Your task to perform on an android device: allow notifications from all sites in the chrome app Image 0: 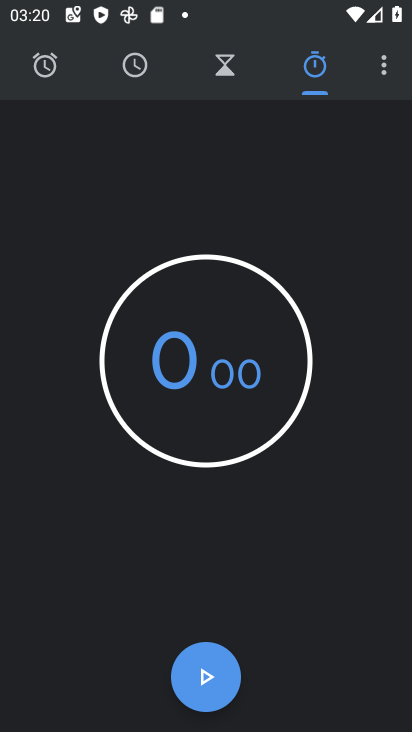
Step 0: press home button
Your task to perform on an android device: allow notifications from all sites in the chrome app Image 1: 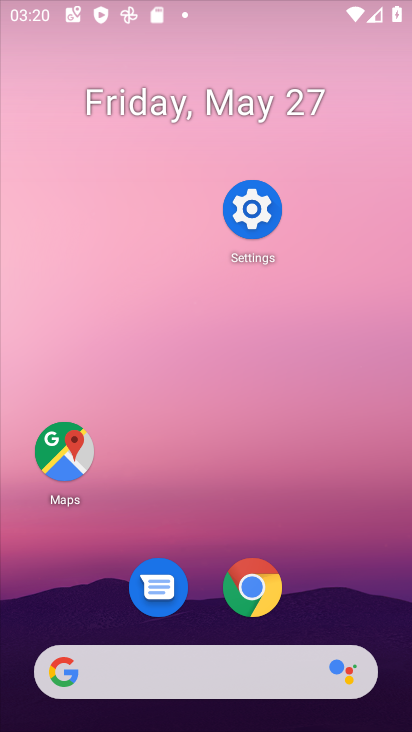
Step 1: click (393, 512)
Your task to perform on an android device: allow notifications from all sites in the chrome app Image 2: 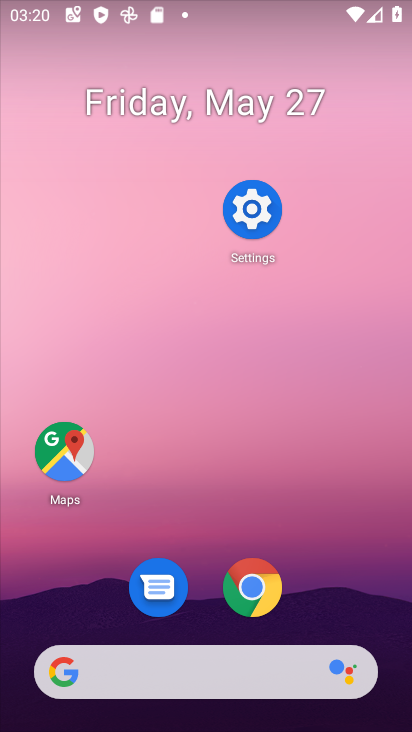
Step 2: click (260, 593)
Your task to perform on an android device: allow notifications from all sites in the chrome app Image 3: 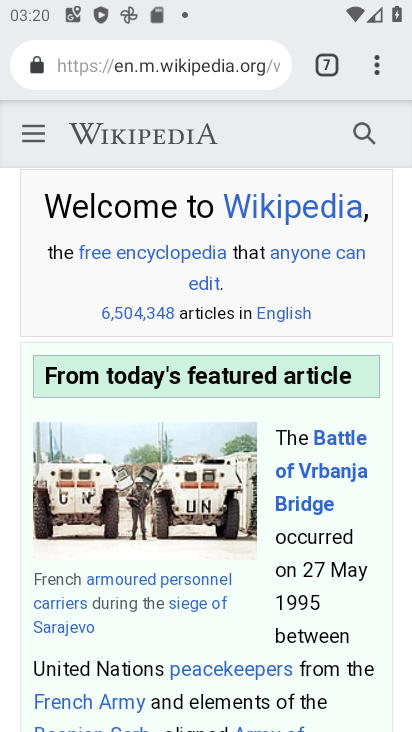
Step 3: press home button
Your task to perform on an android device: allow notifications from all sites in the chrome app Image 4: 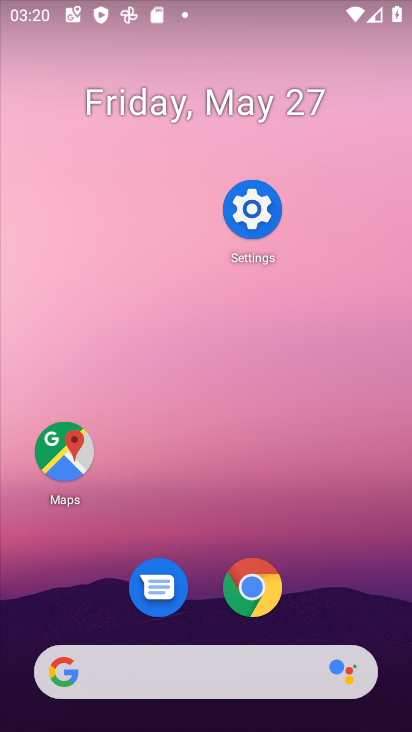
Step 4: click (286, 584)
Your task to perform on an android device: allow notifications from all sites in the chrome app Image 5: 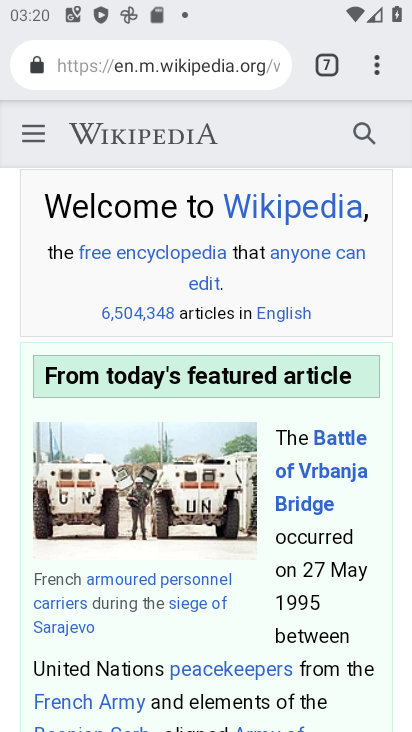
Step 5: click (373, 62)
Your task to perform on an android device: allow notifications from all sites in the chrome app Image 6: 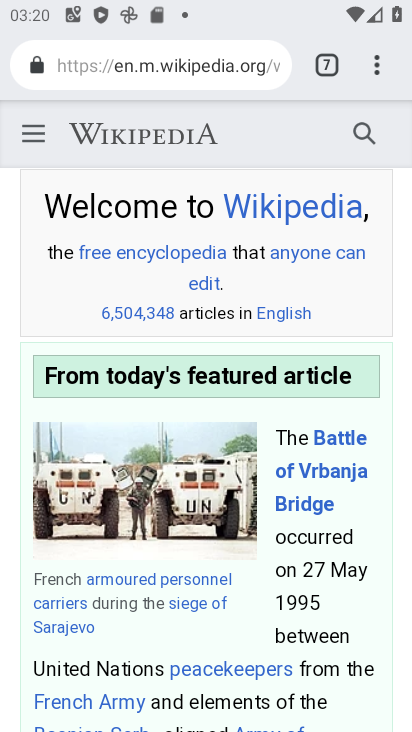
Step 6: drag from (379, 64) to (176, 640)
Your task to perform on an android device: allow notifications from all sites in the chrome app Image 7: 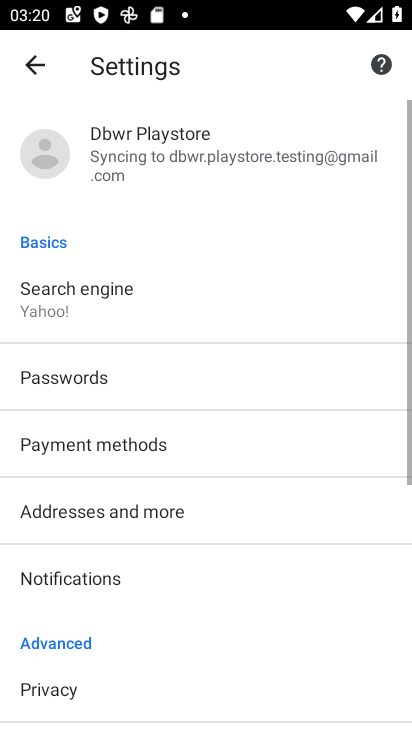
Step 7: drag from (211, 679) to (238, 208)
Your task to perform on an android device: allow notifications from all sites in the chrome app Image 8: 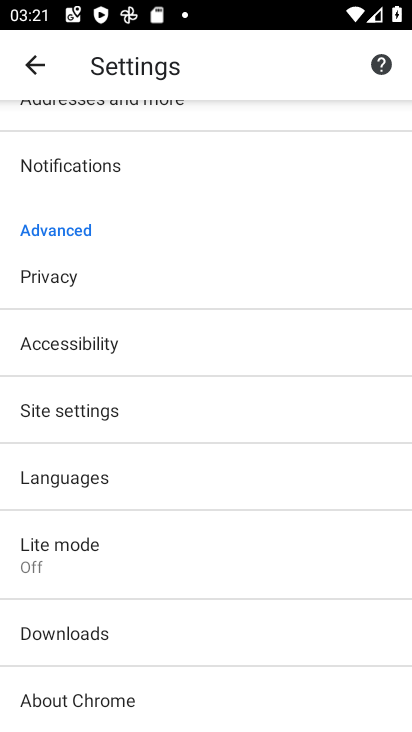
Step 8: click (37, 410)
Your task to perform on an android device: allow notifications from all sites in the chrome app Image 9: 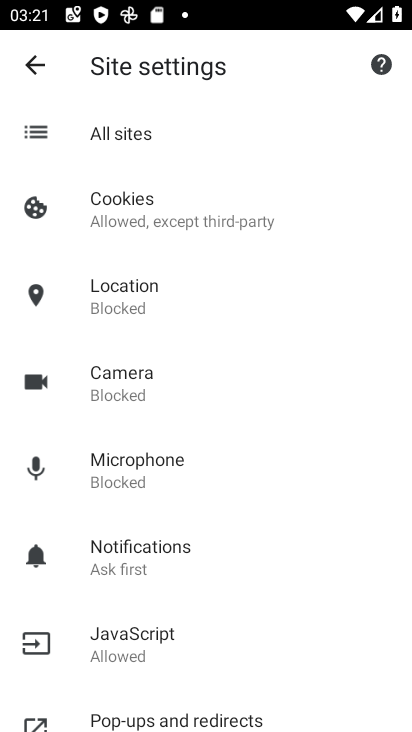
Step 9: drag from (327, 673) to (323, 5)
Your task to perform on an android device: allow notifications from all sites in the chrome app Image 10: 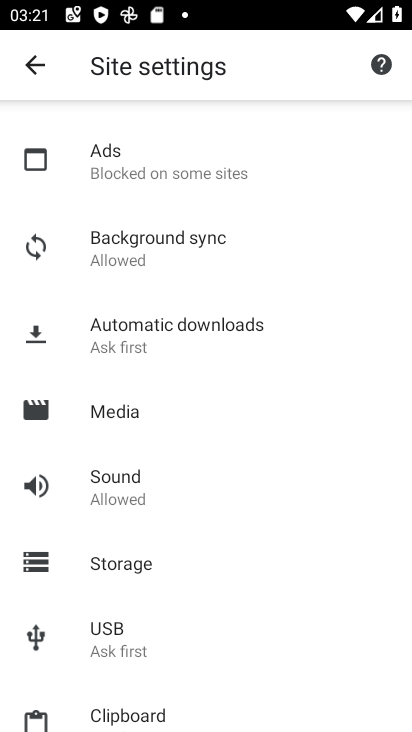
Step 10: drag from (297, 699) to (299, 215)
Your task to perform on an android device: allow notifications from all sites in the chrome app Image 11: 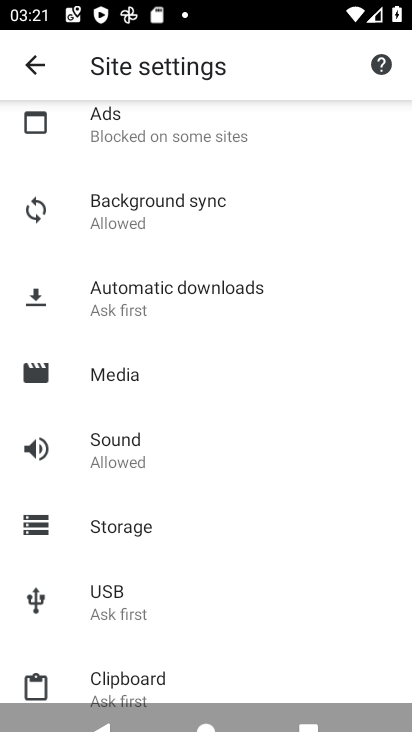
Step 11: drag from (301, 579) to (338, 134)
Your task to perform on an android device: allow notifications from all sites in the chrome app Image 12: 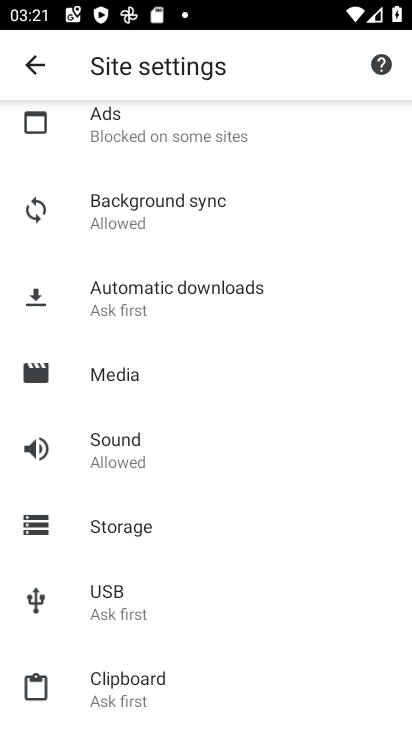
Step 12: drag from (329, 123) to (322, 523)
Your task to perform on an android device: allow notifications from all sites in the chrome app Image 13: 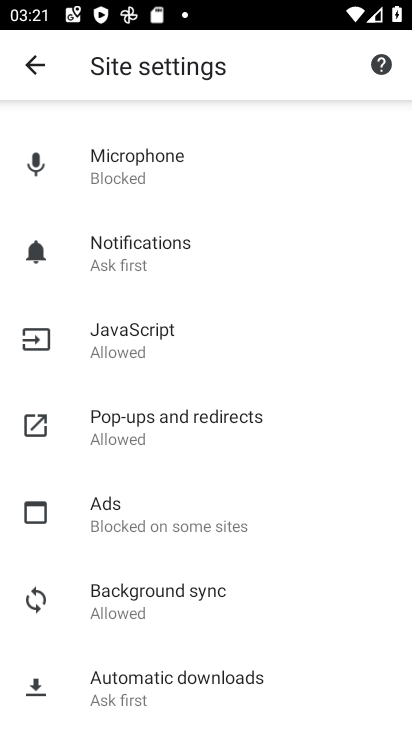
Step 13: click (192, 268)
Your task to perform on an android device: allow notifications from all sites in the chrome app Image 14: 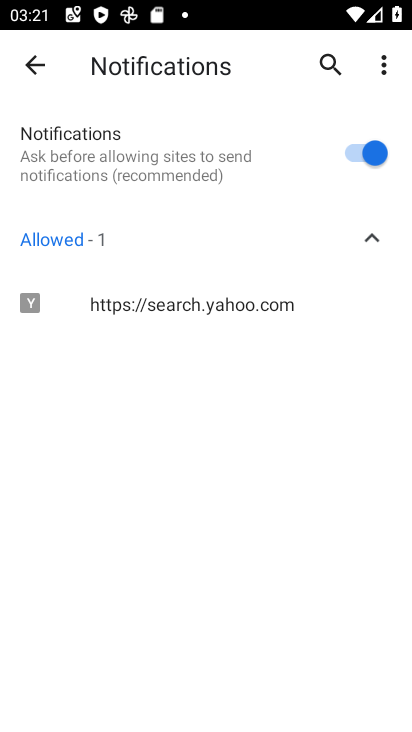
Step 14: task complete